Your task to perform on an android device: turn on sleep mode Image 0: 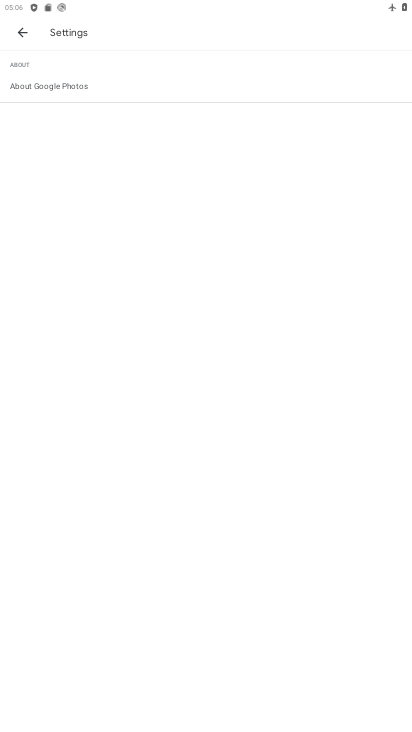
Step 0: press home button
Your task to perform on an android device: turn on sleep mode Image 1: 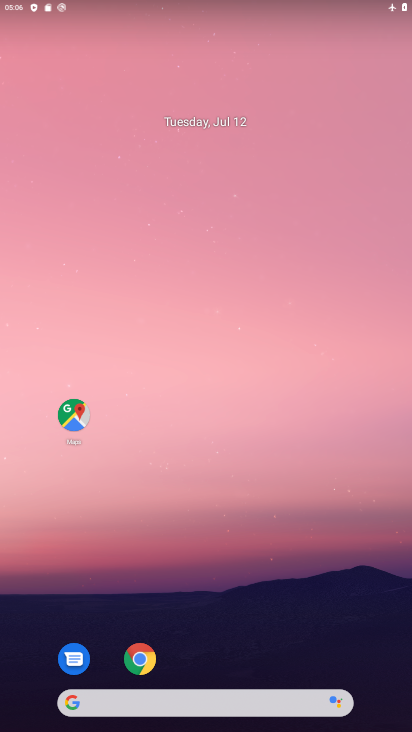
Step 1: drag from (386, 668) to (313, 14)
Your task to perform on an android device: turn on sleep mode Image 2: 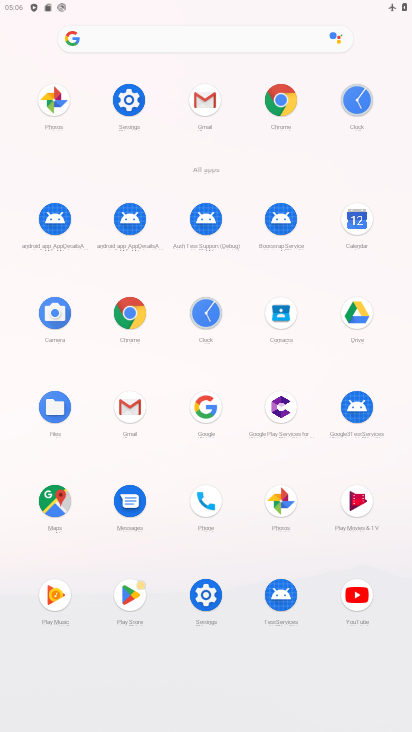
Step 2: click (208, 594)
Your task to perform on an android device: turn on sleep mode Image 3: 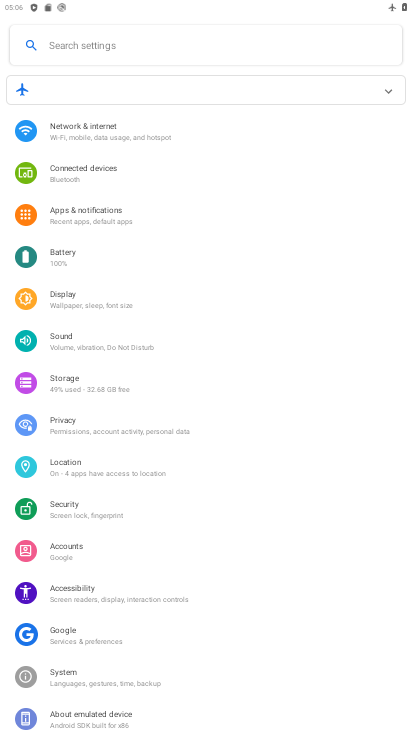
Step 3: click (65, 282)
Your task to perform on an android device: turn on sleep mode Image 4: 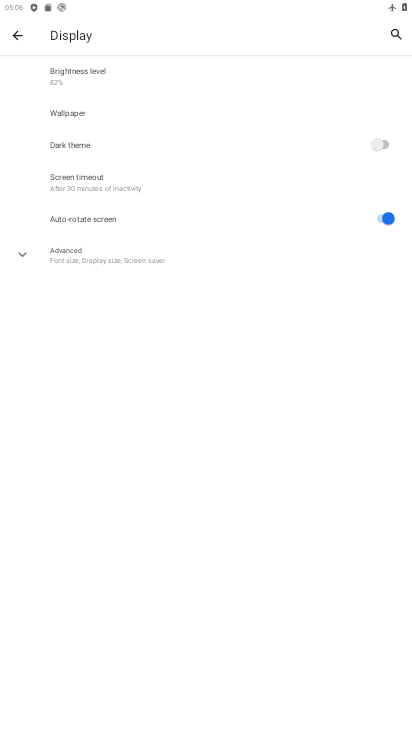
Step 4: click (30, 250)
Your task to perform on an android device: turn on sleep mode Image 5: 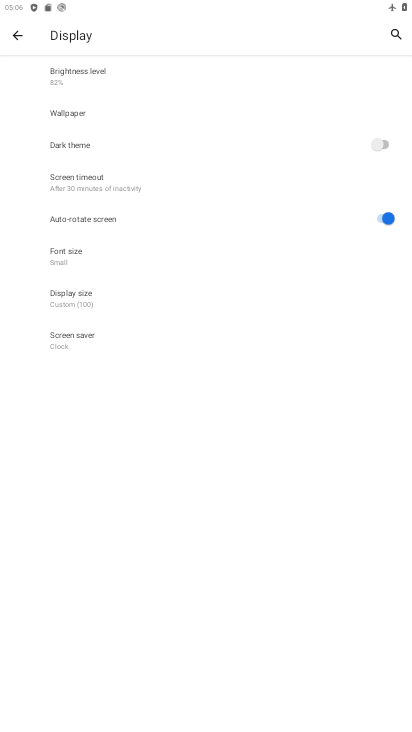
Step 5: task complete